Your task to perform on an android device: Open Amazon Image 0: 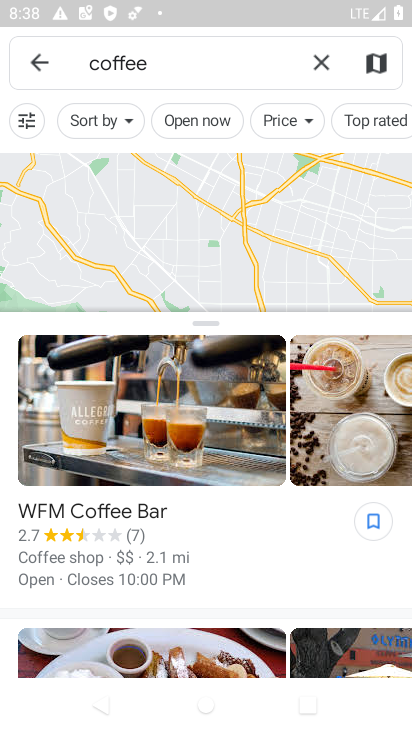
Step 0: press home button
Your task to perform on an android device: Open Amazon Image 1: 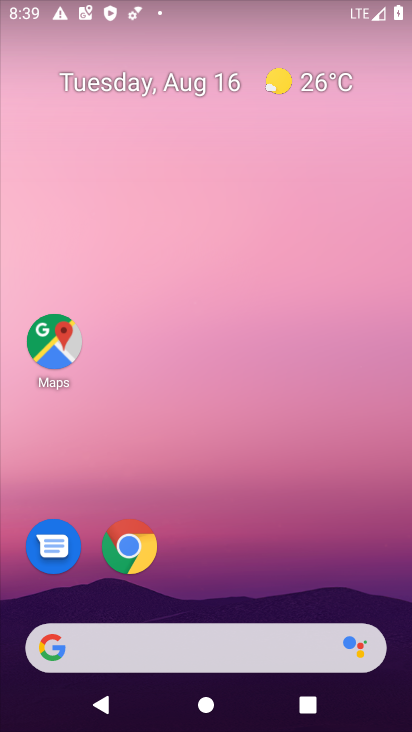
Step 1: click (127, 542)
Your task to perform on an android device: Open Amazon Image 2: 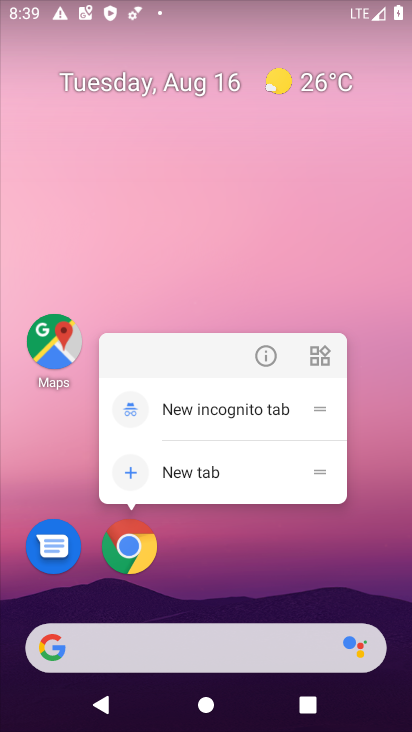
Step 2: click (131, 530)
Your task to perform on an android device: Open Amazon Image 3: 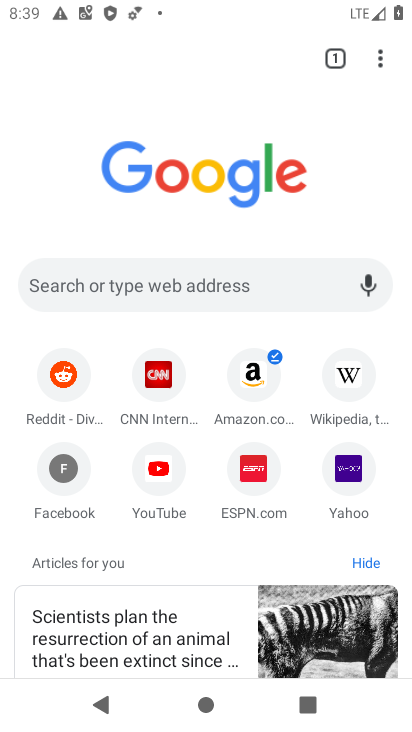
Step 3: click (253, 364)
Your task to perform on an android device: Open Amazon Image 4: 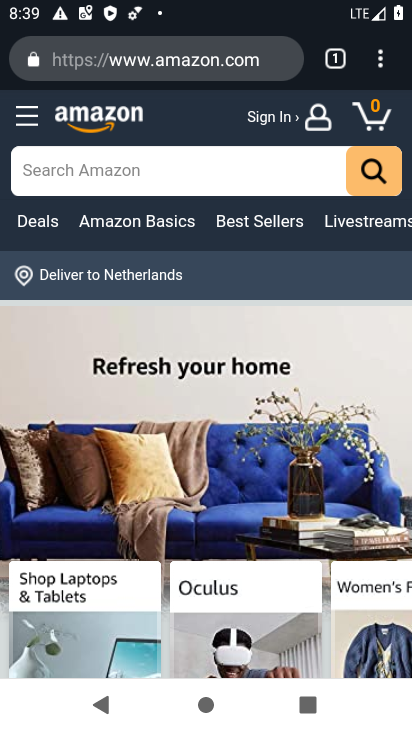
Step 4: task complete